Your task to perform on an android device: Go to battery settings Image 0: 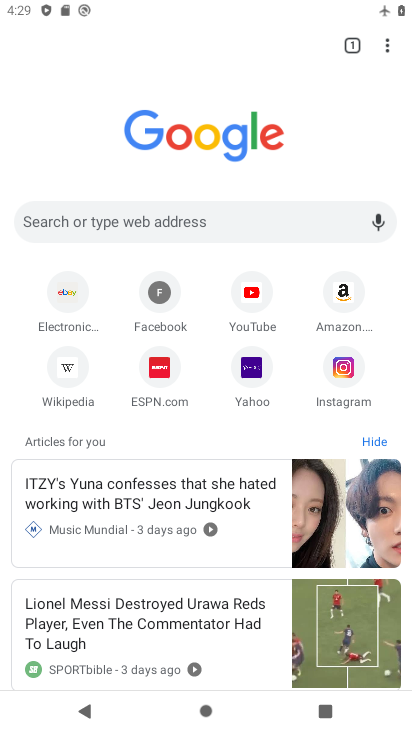
Step 0: press home button
Your task to perform on an android device: Go to battery settings Image 1: 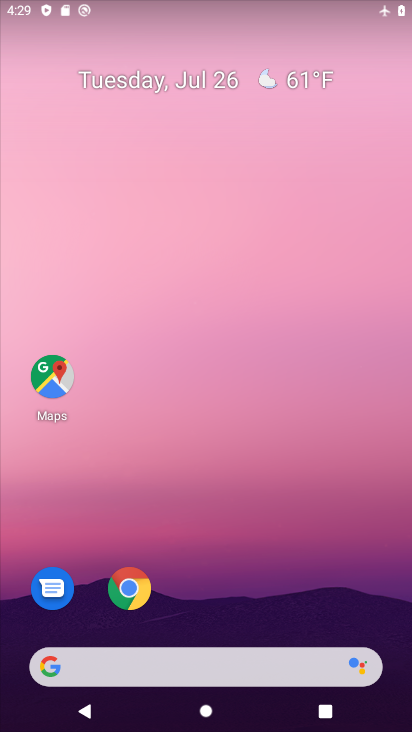
Step 1: drag from (316, 553) to (345, 5)
Your task to perform on an android device: Go to battery settings Image 2: 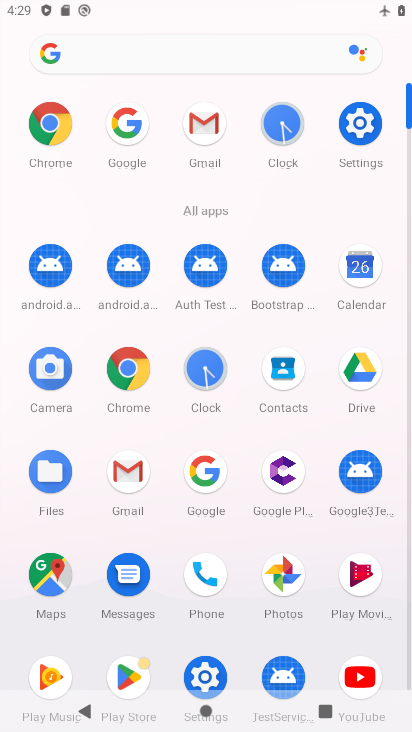
Step 2: click (370, 113)
Your task to perform on an android device: Go to battery settings Image 3: 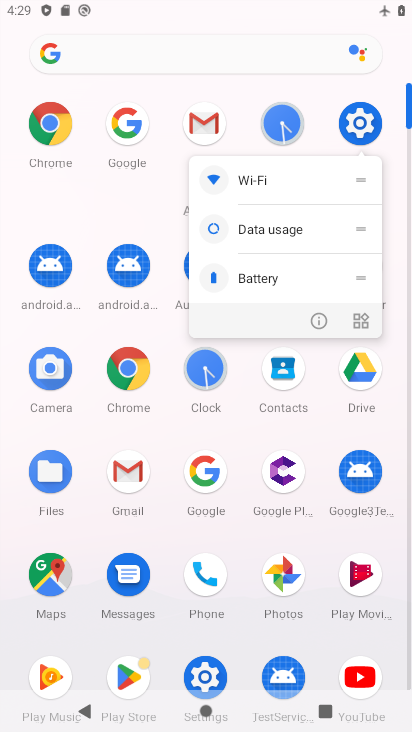
Step 3: click (365, 122)
Your task to perform on an android device: Go to battery settings Image 4: 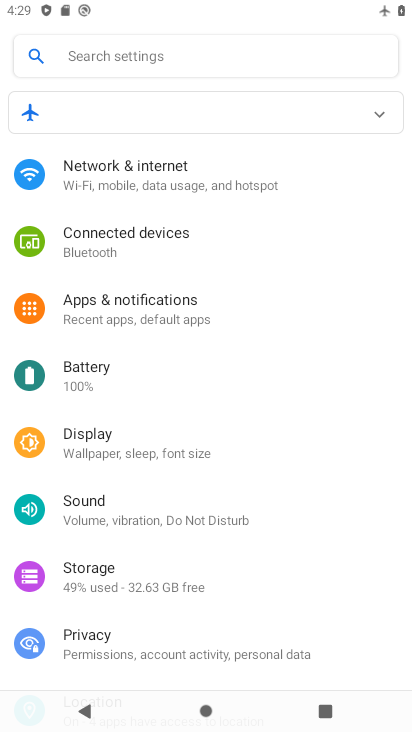
Step 4: click (78, 385)
Your task to perform on an android device: Go to battery settings Image 5: 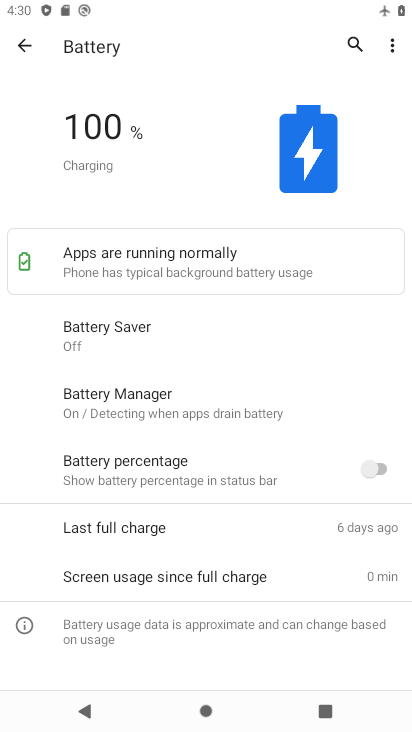
Step 5: task complete